Your task to perform on an android device: Go to CNN.com Image 0: 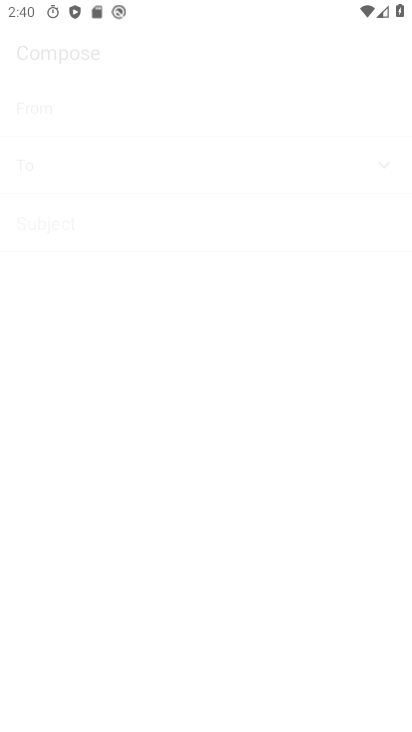
Step 0: drag from (346, 643) to (367, 10)
Your task to perform on an android device: Go to CNN.com Image 1: 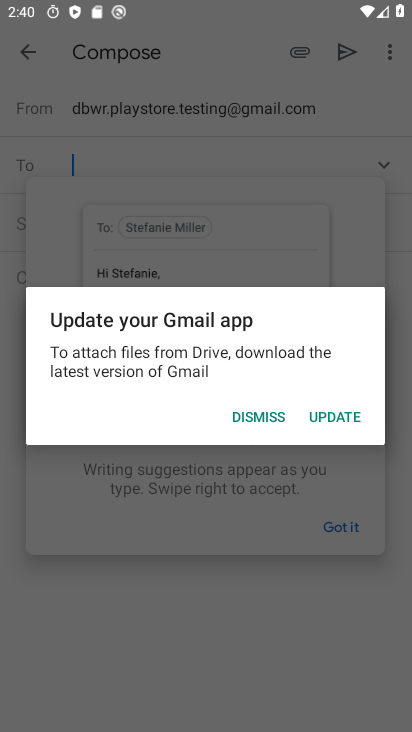
Step 1: press home button
Your task to perform on an android device: Go to CNN.com Image 2: 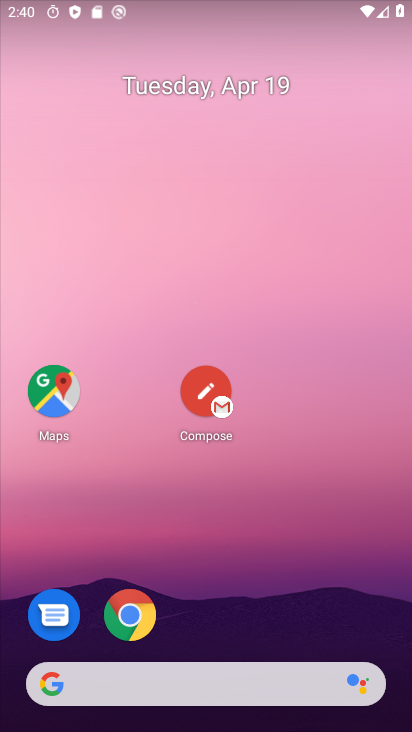
Step 2: drag from (326, 599) to (377, 202)
Your task to perform on an android device: Go to CNN.com Image 3: 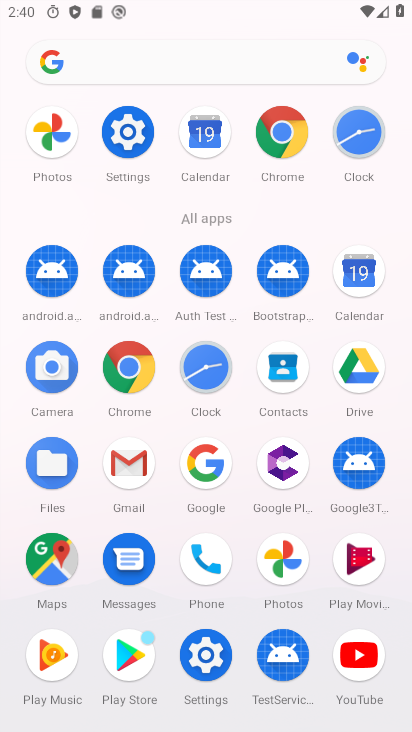
Step 3: click (126, 366)
Your task to perform on an android device: Go to CNN.com Image 4: 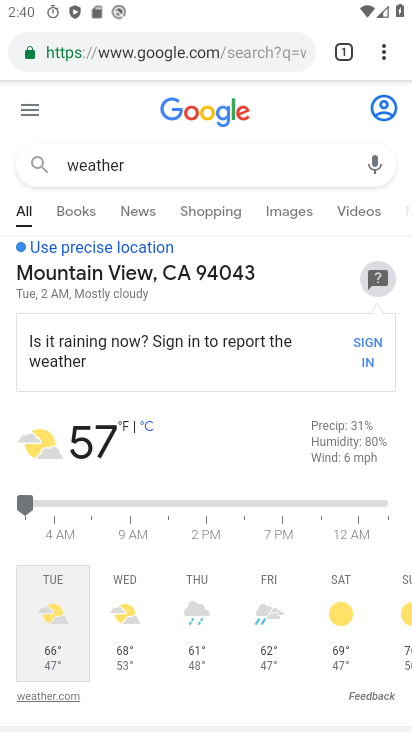
Step 4: click (214, 162)
Your task to perform on an android device: Go to CNN.com Image 5: 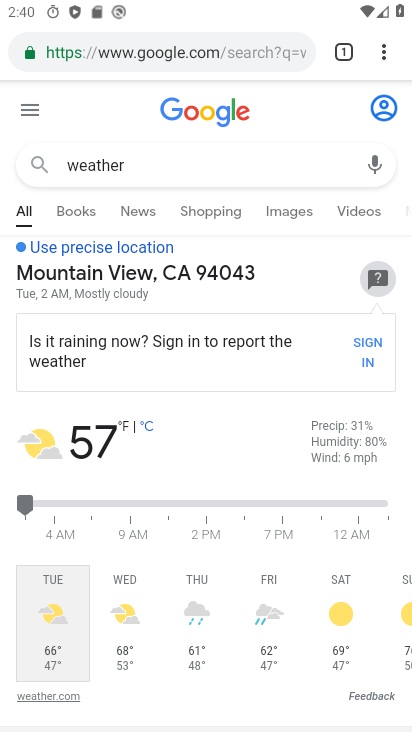
Step 5: click (214, 162)
Your task to perform on an android device: Go to CNN.com Image 6: 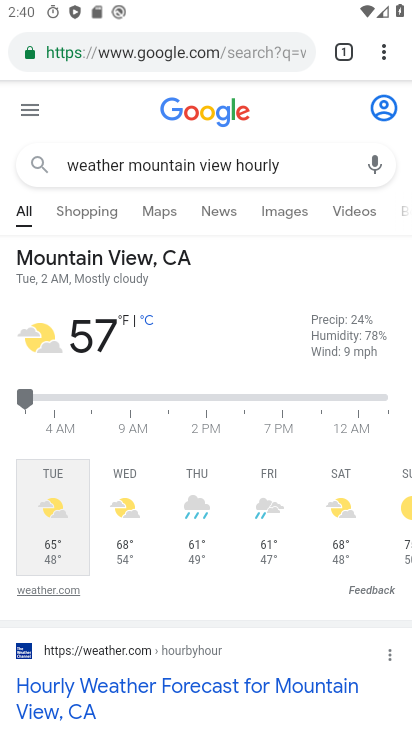
Step 6: click (268, 51)
Your task to perform on an android device: Go to CNN.com Image 7: 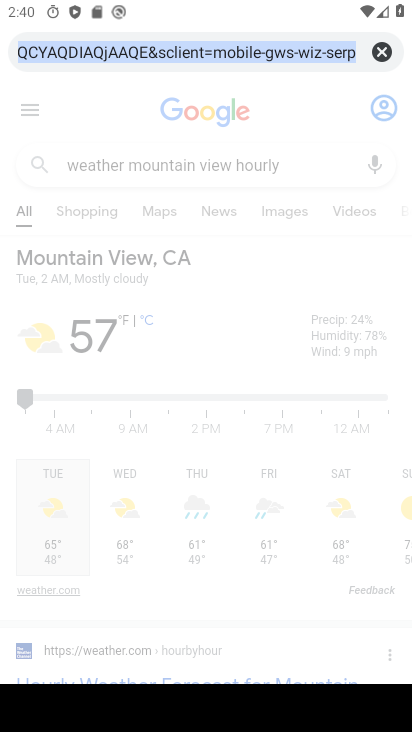
Step 7: click (381, 54)
Your task to perform on an android device: Go to CNN.com Image 8: 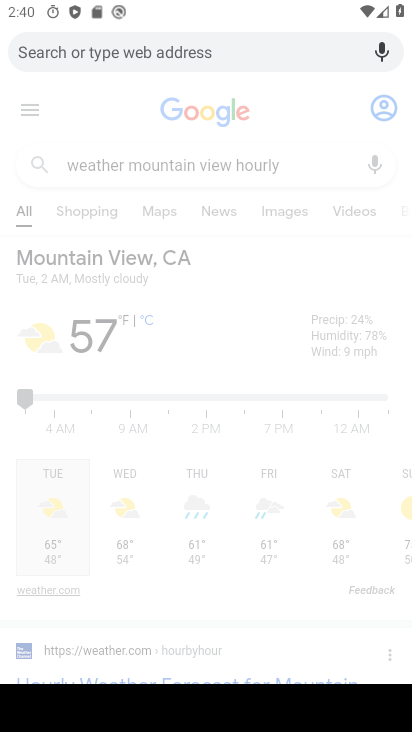
Step 8: type "cnn.com"
Your task to perform on an android device: Go to CNN.com Image 9: 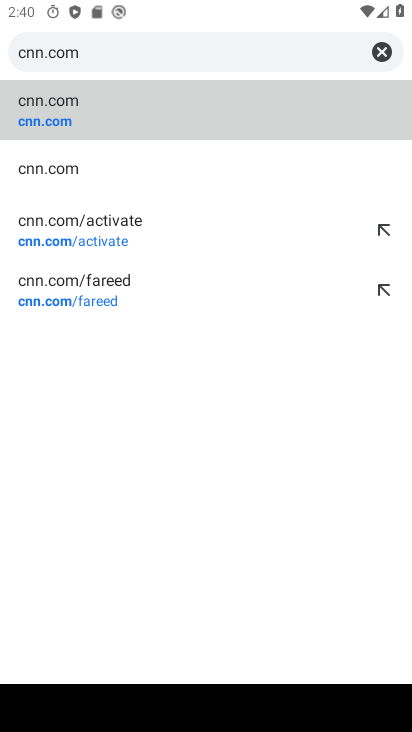
Step 9: click (76, 116)
Your task to perform on an android device: Go to CNN.com Image 10: 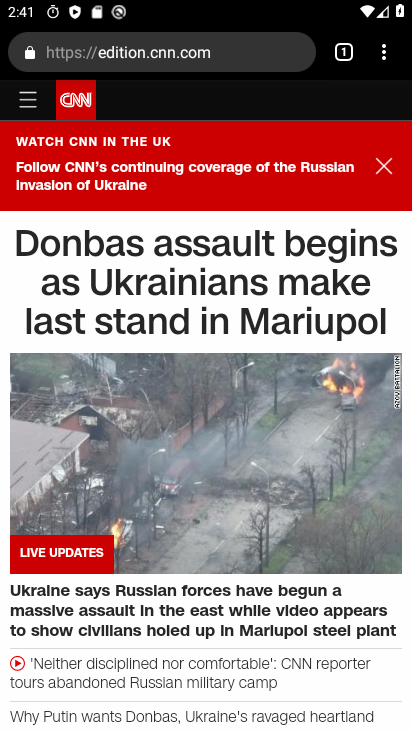
Step 10: task complete